Your task to perform on an android device: Go to network settings Image 0: 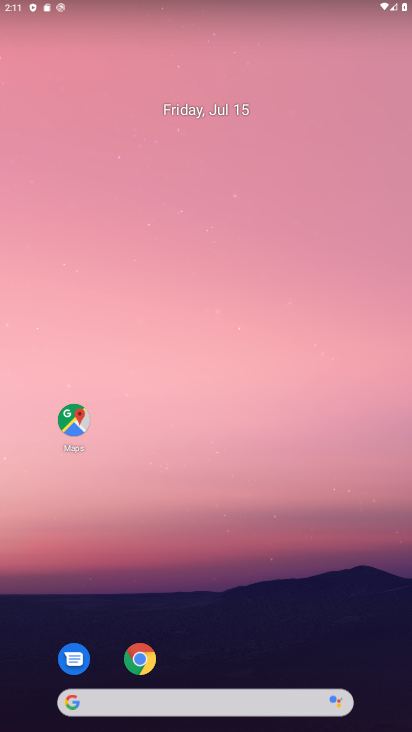
Step 0: drag from (137, 93) to (194, 253)
Your task to perform on an android device: Go to network settings Image 1: 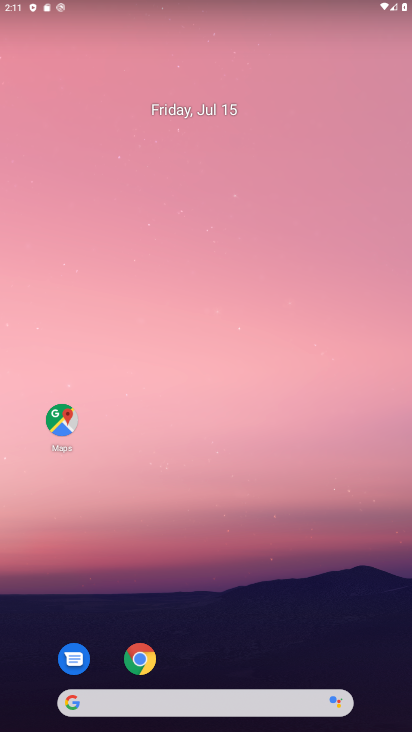
Step 1: drag from (221, 583) to (227, 282)
Your task to perform on an android device: Go to network settings Image 2: 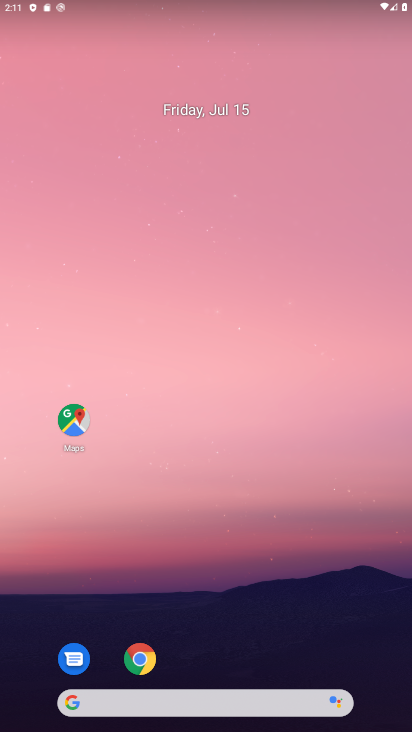
Step 2: click (290, 132)
Your task to perform on an android device: Go to network settings Image 3: 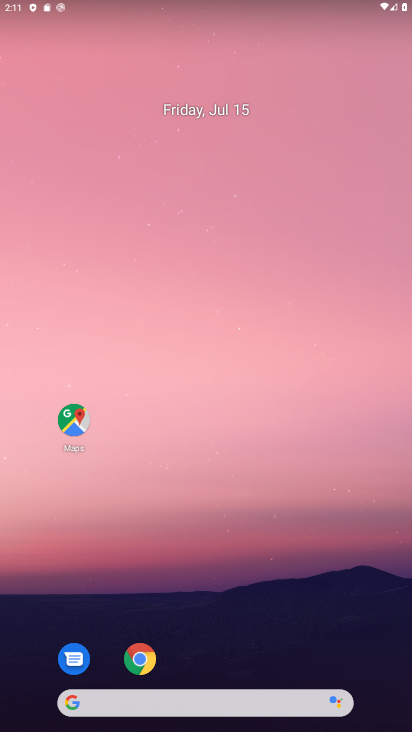
Step 3: click (188, 124)
Your task to perform on an android device: Go to network settings Image 4: 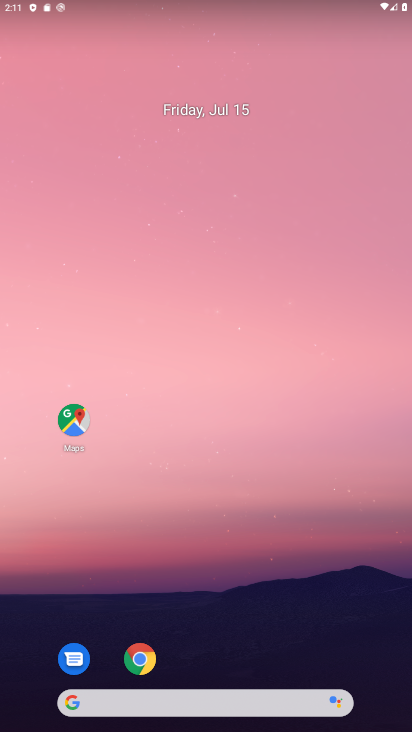
Step 4: drag from (260, 506) to (169, 116)
Your task to perform on an android device: Go to network settings Image 5: 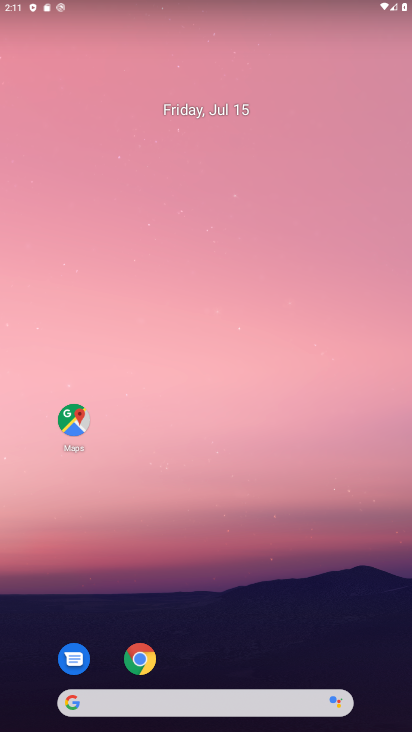
Step 5: click (241, 216)
Your task to perform on an android device: Go to network settings Image 6: 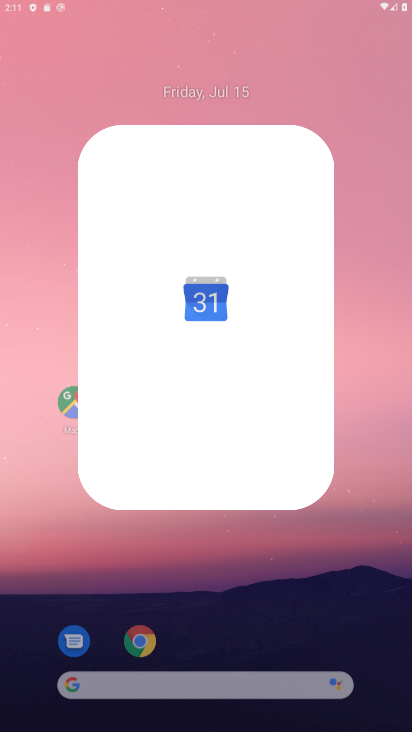
Step 6: drag from (299, 528) to (303, 29)
Your task to perform on an android device: Go to network settings Image 7: 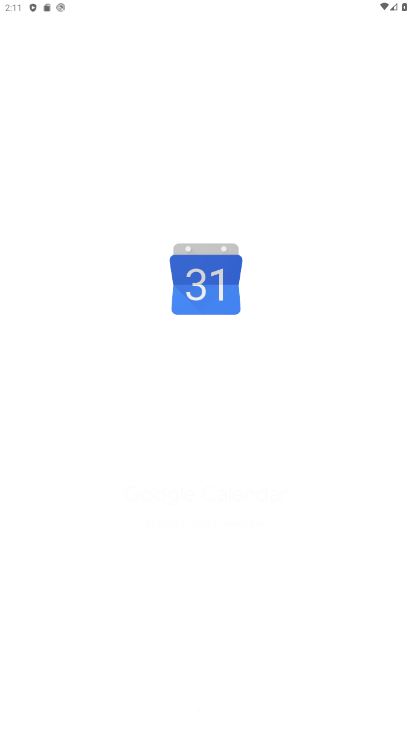
Step 7: drag from (226, 439) to (151, 77)
Your task to perform on an android device: Go to network settings Image 8: 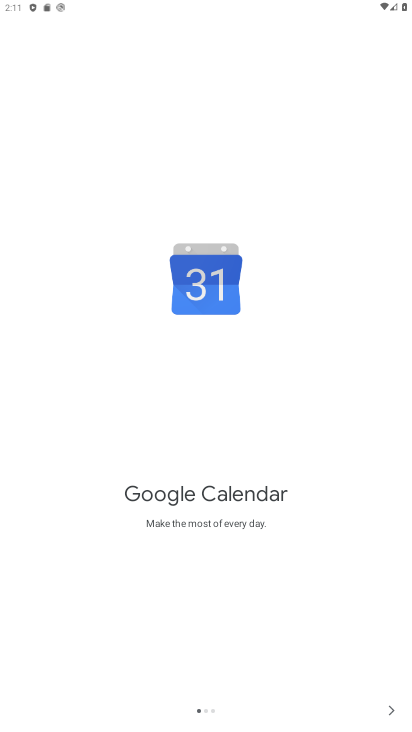
Step 8: press back button
Your task to perform on an android device: Go to network settings Image 9: 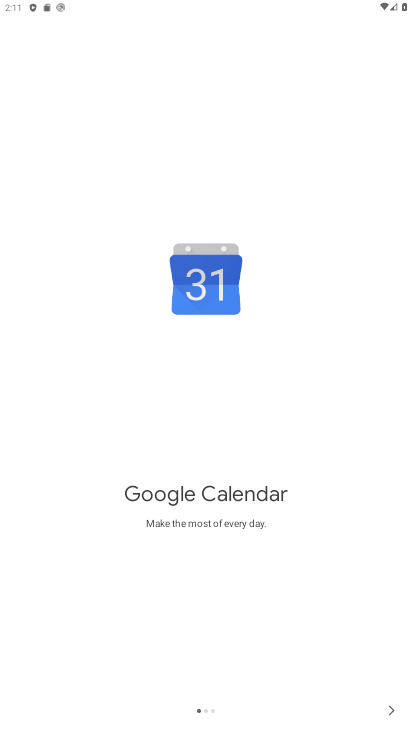
Step 9: press back button
Your task to perform on an android device: Go to network settings Image 10: 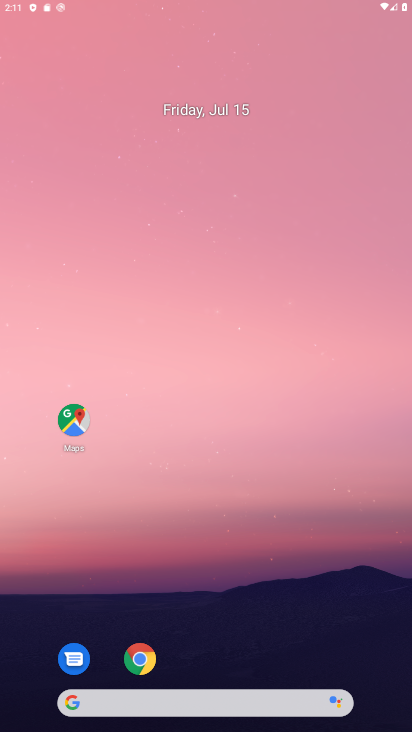
Step 10: press back button
Your task to perform on an android device: Go to network settings Image 11: 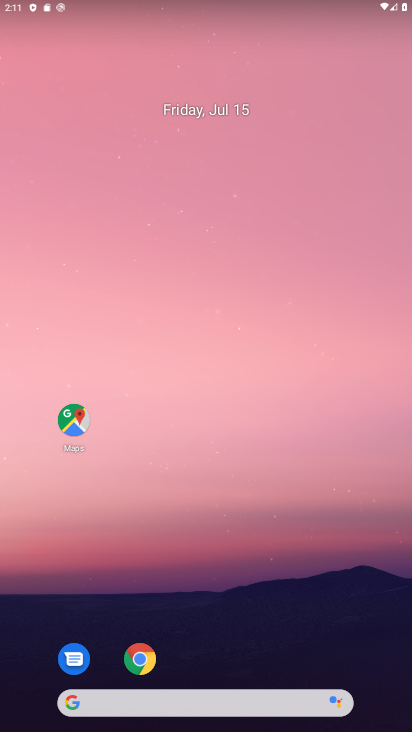
Step 11: press home button
Your task to perform on an android device: Go to network settings Image 12: 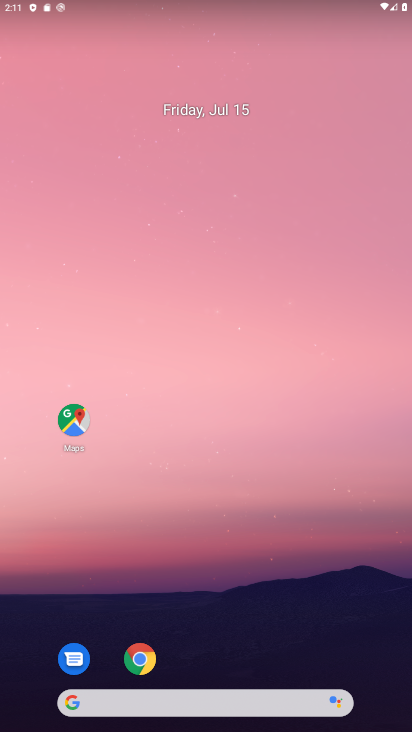
Step 12: drag from (168, 228) to (206, 308)
Your task to perform on an android device: Go to network settings Image 13: 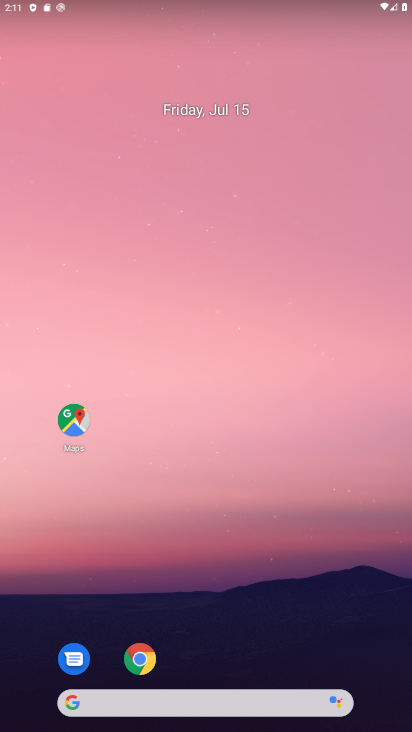
Step 13: drag from (228, 324) to (228, 278)
Your task to perform on an android device: Go to network settings Image 14: 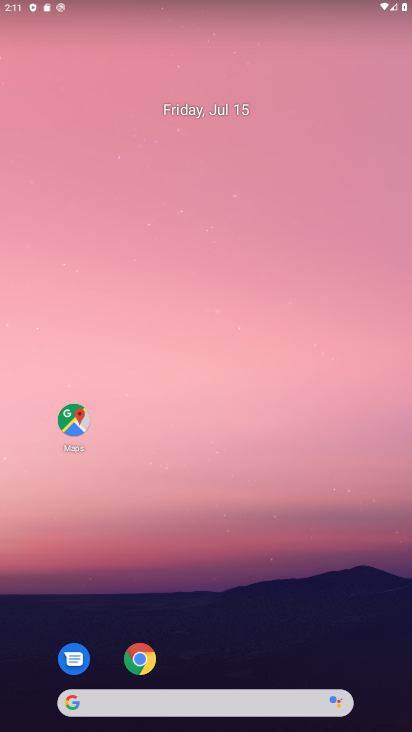
Step 14: drag from (257, 454) to (202, 34)
Your task to perform on an android device: Go to network settings Image 15: 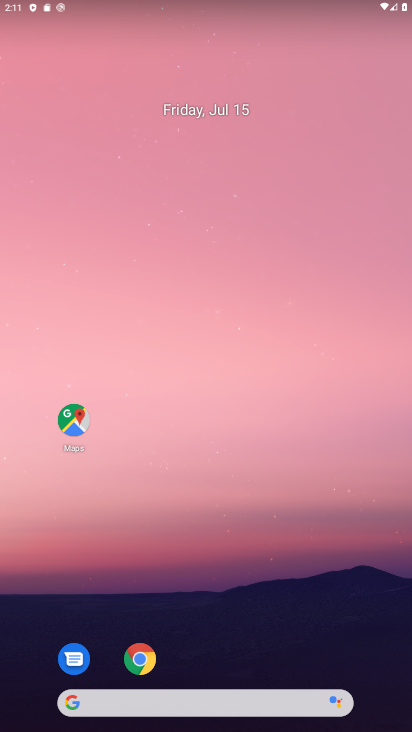
Step 15: drag from (178, 406) to (89, 31)
Your task to perform on an android device: Go to network settings Image 16: 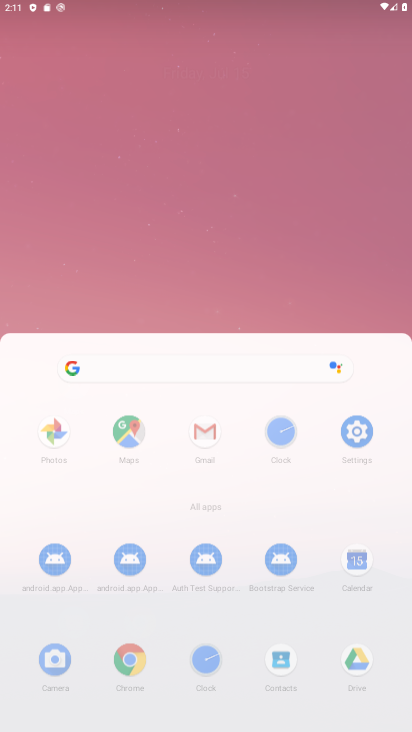
Step 16: drag from (245, 510) to (225, 87)
Your task to perform on an android device: Go to network settings Image 17: 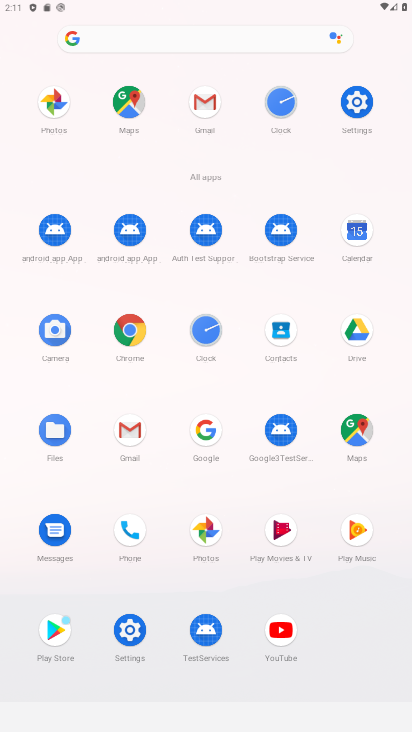
Step 17: drag from (187, 542) to (235, 120)
Your task to perform on an android device: Go to network settings Image 18: 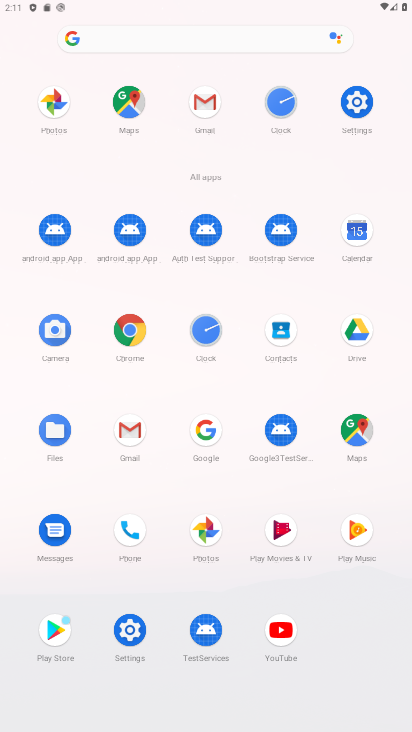
Step 18: click (333, 96)
Your task to perform on an android device: Go to network settings Image 19: 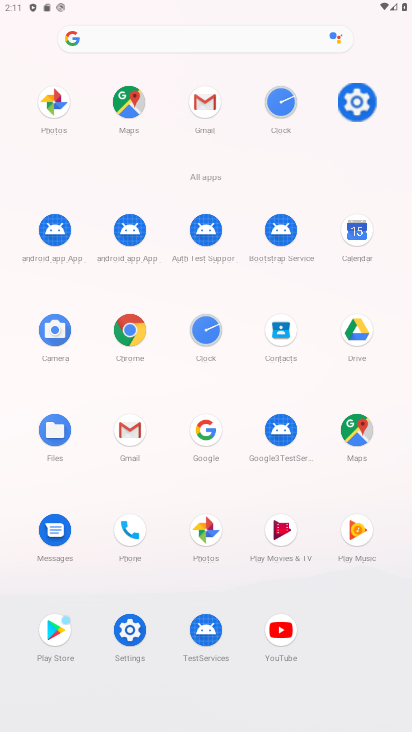
Step 19: click (353, 101)
Your task to perform on an android device: Go to network settings Image 20: 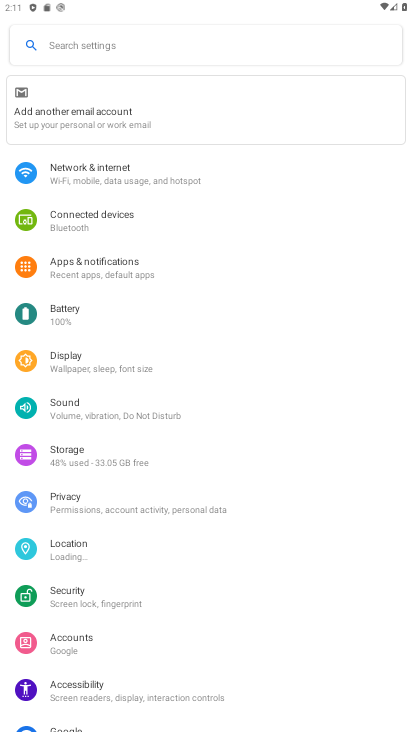
Step 20: task complete